Your task to perform on an android device: Search for "macbook" on walmart, select the first entry, and add it to the cart. Image 0: 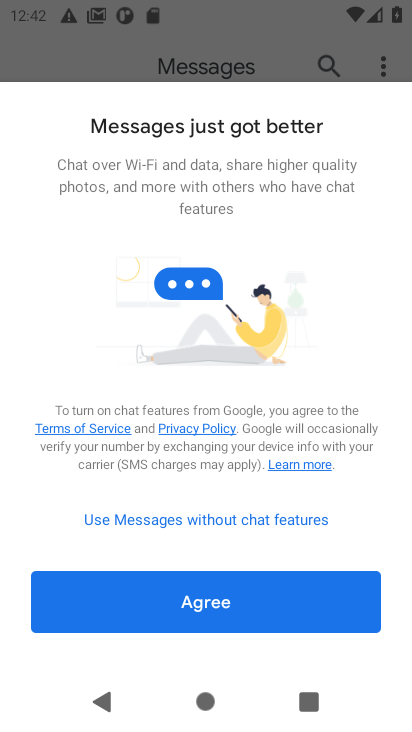
Step 0: press home button
Your task to perform on an android device: Search for "macbook" on walmart, select the first entry, and add it to the cart. Image 1: 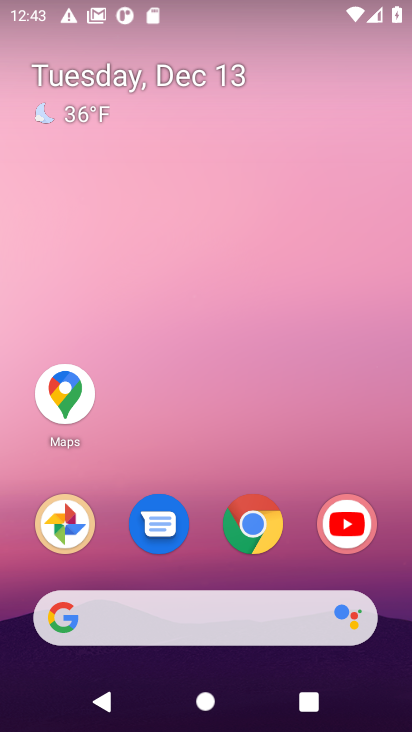
Step 1: click (254, 536)
Your task to perform on an android device: Search for "macbook" on walmart, select the first entry, and add it to the cart. Image 2: 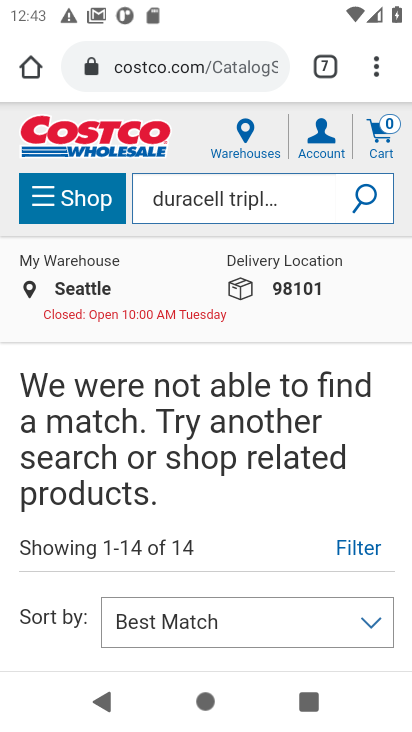
Step 2: click (159, 67)
Your task to perform on an android device: Search for "macbook" on walmart, select the first entry, and add it to the cart. Image 3: 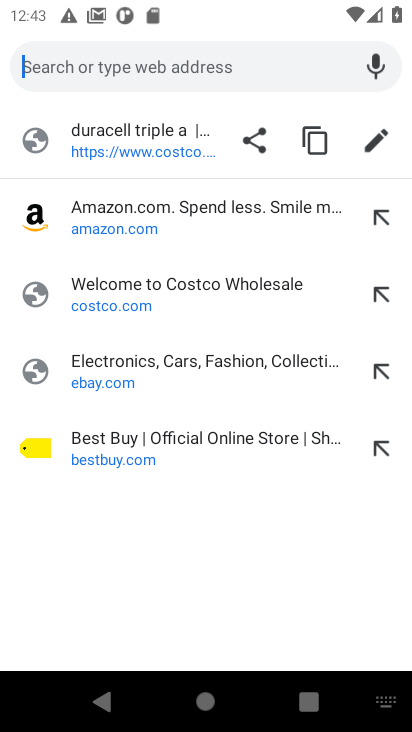
Step 3: type "walmart.com"
Your task to perform on an android device: Search for "macbook" on walmart, select the first entry, and add it to the cart. Image 4: 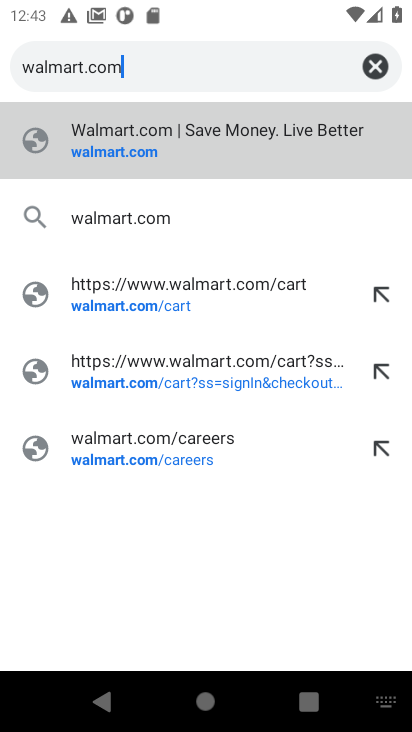
Step 4: click (97, 156)
Your task to perform on an android device: Search for "macbook" on walmart, select the first entry, and add it to the cart. Image 5: 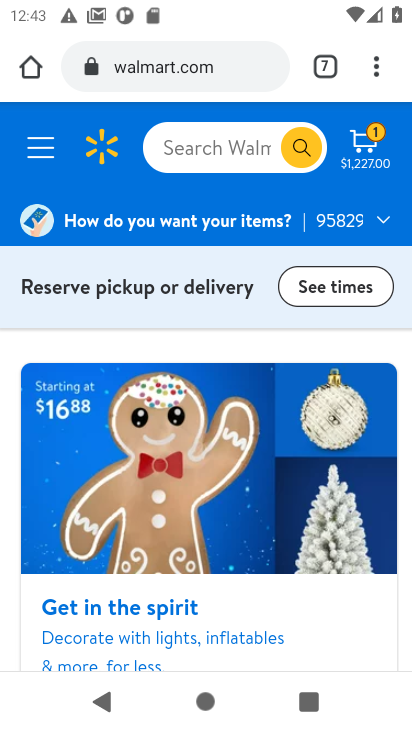
Step 5: click (181, 149)
Your task to perform on an android device: Search for "macbook" on walmart, select the first entry, and add it to the cart. Image 6: 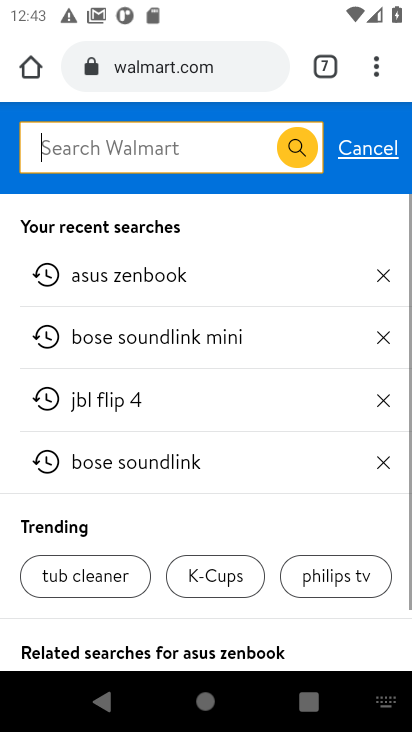
Step 6: type "macbook"
Your task to perform on an android device: Search for "macbook" on walmart, select the first entry, and add it to the cart. Image 7: 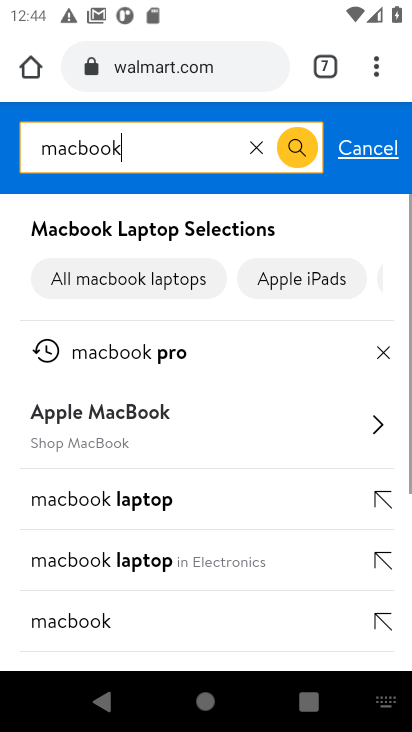
Step 7: click (76, 623)
Your task to perform on an android device: Search for "macbook" on walmart, select the first entry, and add it to the cart. Image 8: 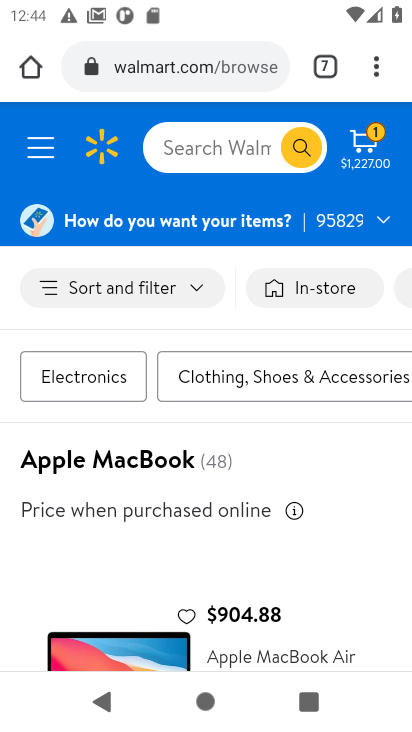
Step 8: drag from (203, 528) to (225, 135)
Your task to perform on an android device: Search for "macbook" on walmart, select the first entry, and add it to the cart. Image 9: 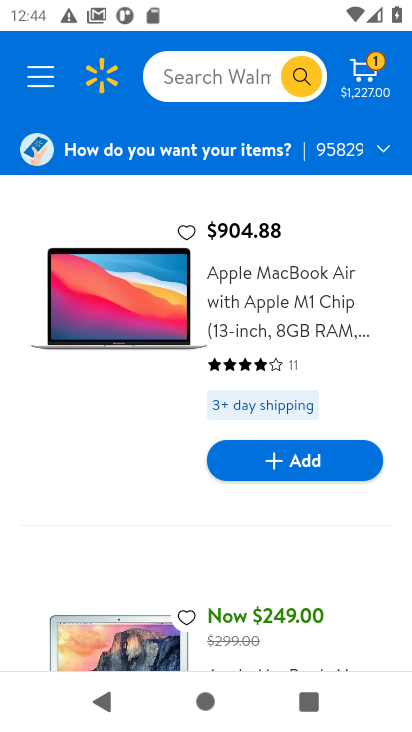
Step 9: click (293, 458)
Your task to perform on an android device: Search for "macbook" on walmart, select the first entry, and add it to the cart. Image 10: 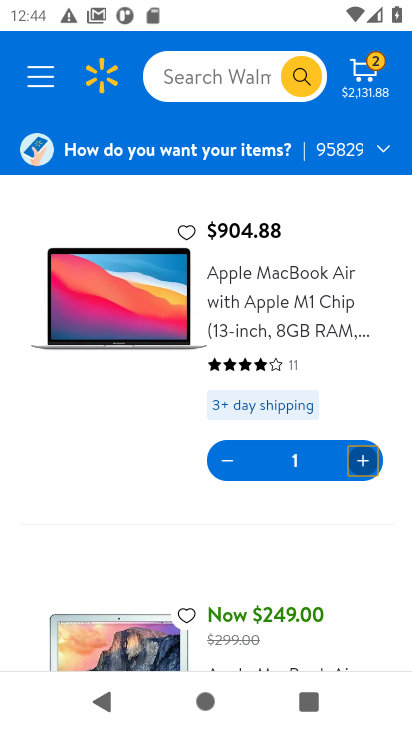
Step 10: task complete